Your task to perform on an android device: open app "Speedtest by Ookla" (install if not already installed) and go to login screen Image 0: 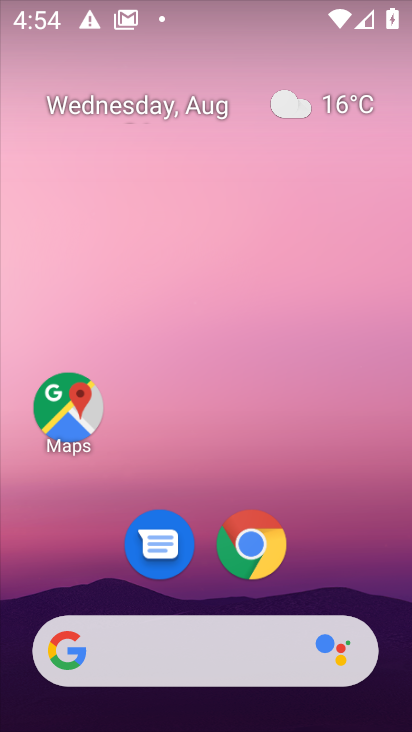
Step 0: drag from (181, 664) to (280, 38)
Your task to perform on an android device: open app "Speedtest by Ookla" (install if not already installed) and go to login screen Image 1: 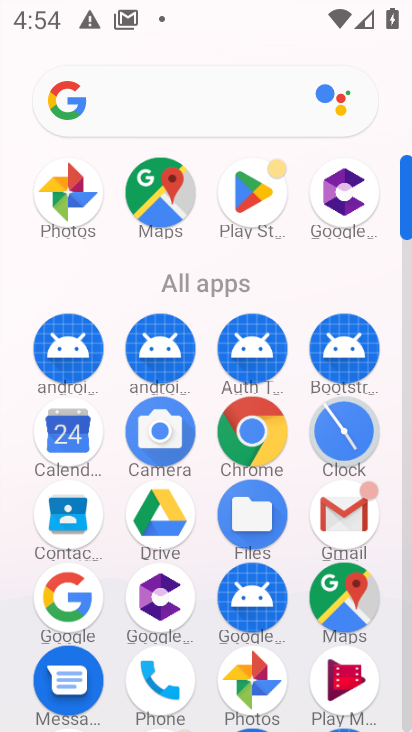
Step 1: click (258, 194)
Your task to perform on an android device: open app "Speedtest by Ookla" (install if not already installed) and go to login screen Image 2: 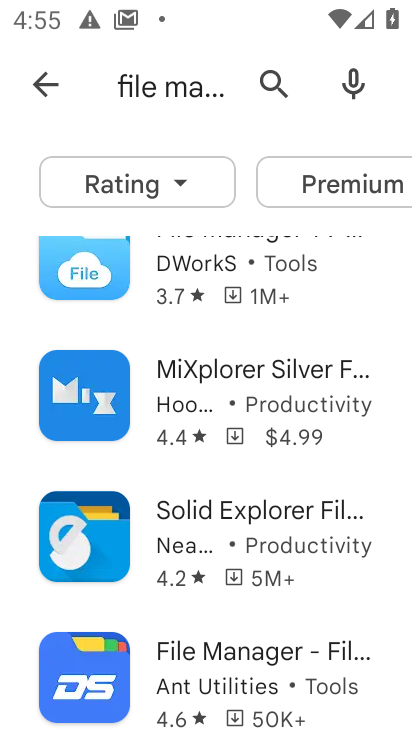
Step 2: press back button
Your task to perform on an android device: open app "Speedtest by Ookla" (install if not already installed) and go to login screen Image 3: 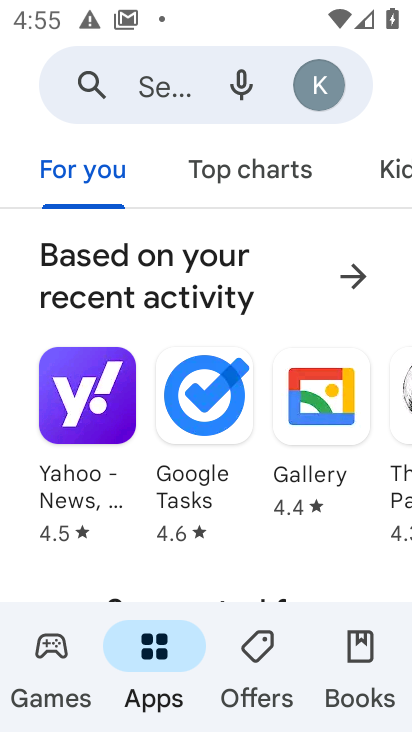
Step 3: click (170, 95)
Your task to perform on an android device: open app "Speedtest by Ookla" (install if not already installed) and go to login screen Image 4: 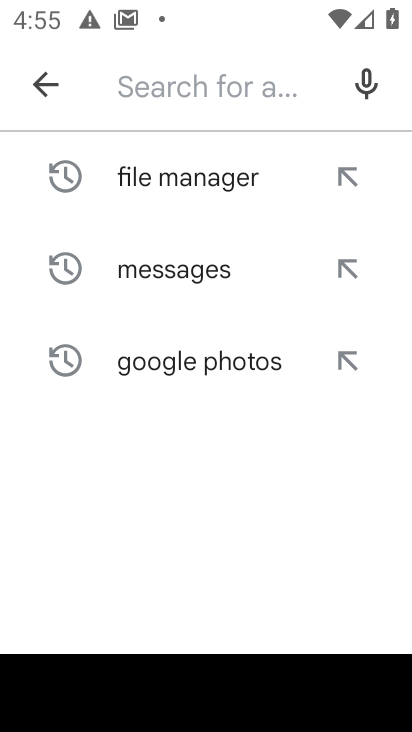
Step 4: type "Speedtest by "
Your task to perform on an android device: open app "Speedtest by Ookla" (install if not already installed) and go to login screen Image 5: 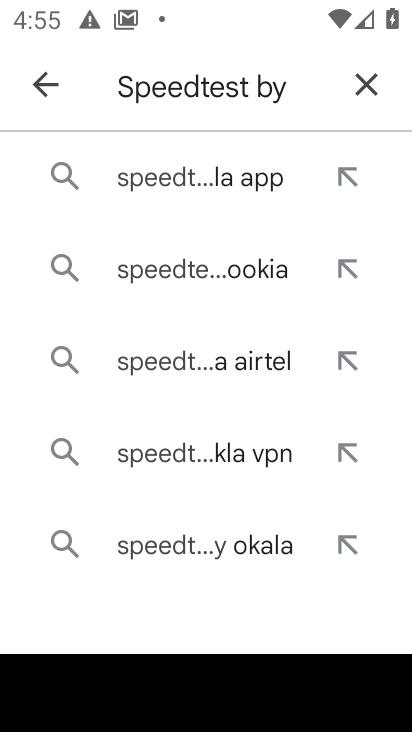
Step 5: type "ookla"
Your task to perform on an android device: open app "Speedtest by Ookla" (install if not already installed) and go to login screen Image 6: 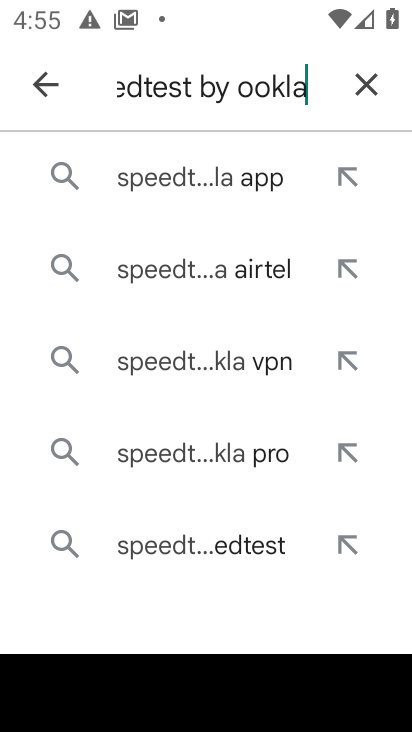
Step 6: click (165, 184)
Your task to perform on an android device: open app "Speedtest by Ookla" (install if not already installed) and go to login screen Image 7: 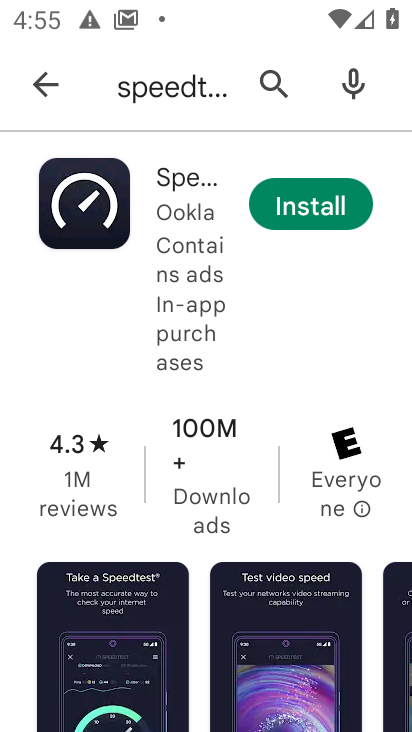
Step 7: click (308, 206)
Your task to perform on an android device: open app "Speedtest by Ookla" (install if not already installed) and go to login screen Image 8: 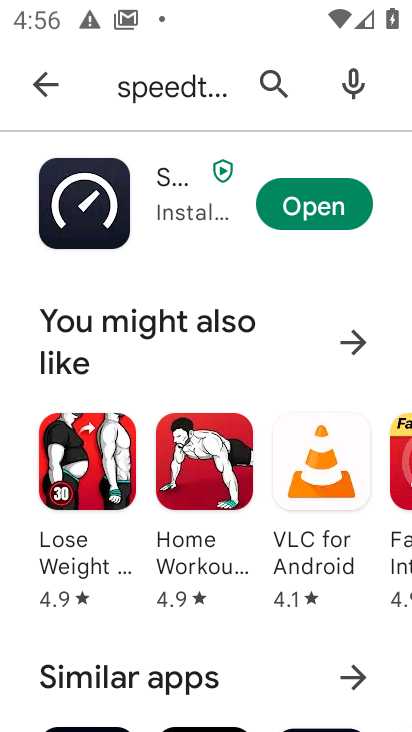
Step 8: click (308, 204)
Your task to perform on an android device: open app "Speedtest by Ookla" (install if not already installed) and go to login screen Image 9: 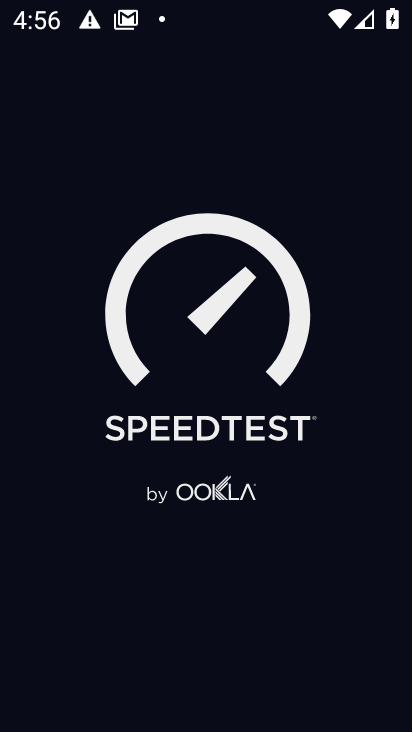
Step 9: click (308, 517)
Your task to perform on an android device: open app "Speedtest by Ookla" (install if not already installed) and go to login screen Image 10: 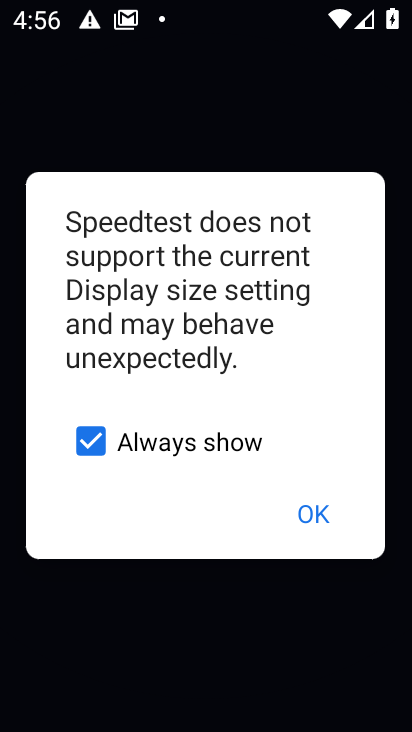
Step 10: click (308, 517)
Your task to perform on an android device: open app "Speedtest by Ookla" (install if not already installed) and go to login screen Image 11: 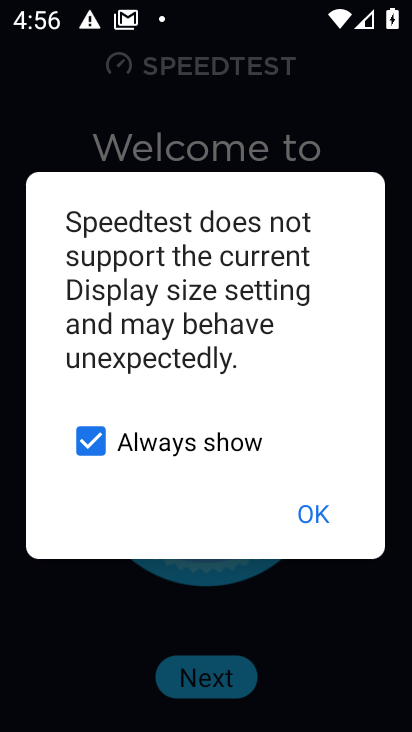
Step 11: click (322, 513)
Your task to perform on an android device: open app "Speedtest by Ookla" (install if not already installed) and go to login screen Image 12: 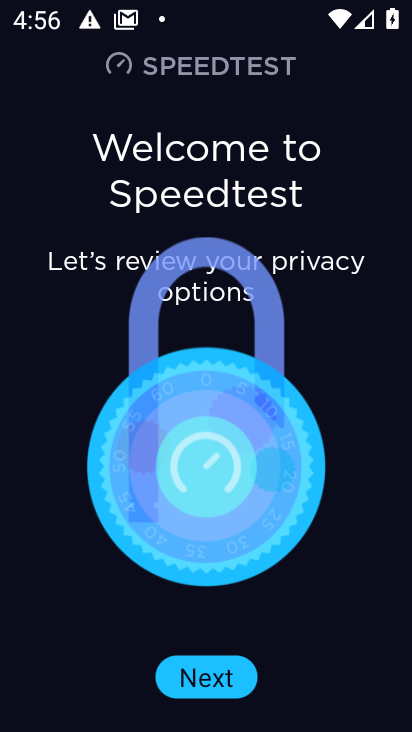
Step 12: click (213, 676)
Your task to perform on an android device: open app "Speedtest by Ookla" (install if not already installed) and go to login screen Image 13: 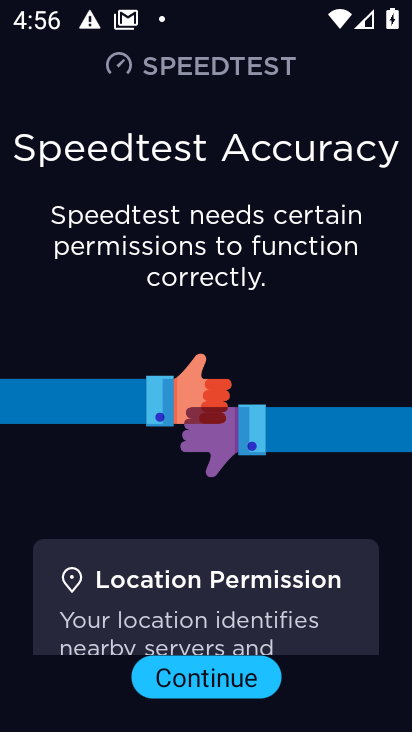
Step 13: click (213, 676)
Your task to perform on an android device: open app "Speedtest by Ookla" (install if not already installed) and go to login screen Image 14: 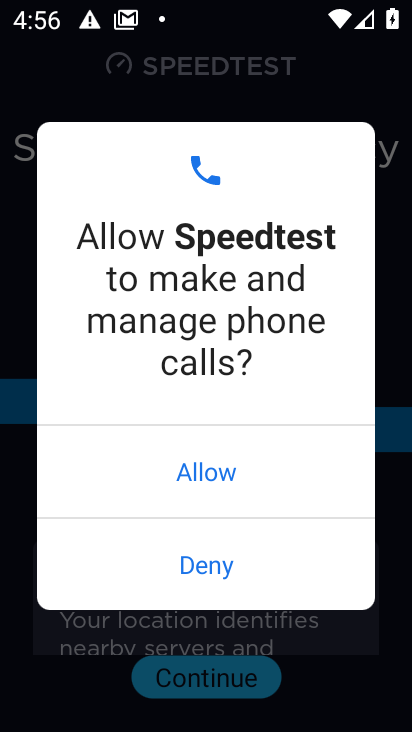
Step 14: click (210, 480)
Your task to perform on an android device: open app "Speedtest by Ookla" (install if not already installed) and go to login screen Image 15: 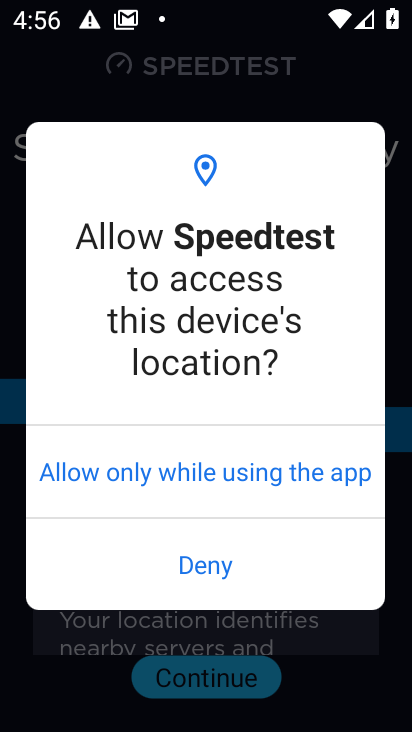
Step 15: click (210, 480)
Your task to perform on an android device: open app "Speedtest by Ookla" (install if not already installed) and go to login screen Image 16: 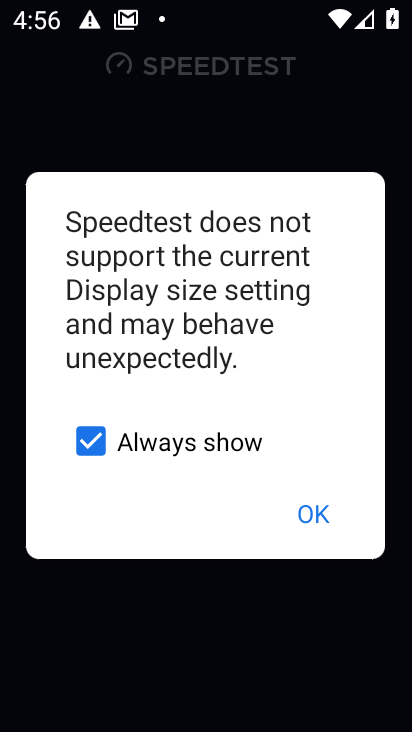
Step 16: click (321, 513)
Your task to perform on an android device: open app "Speedtest by Ookla" (install if not already installed) and go to login screen Image 17: 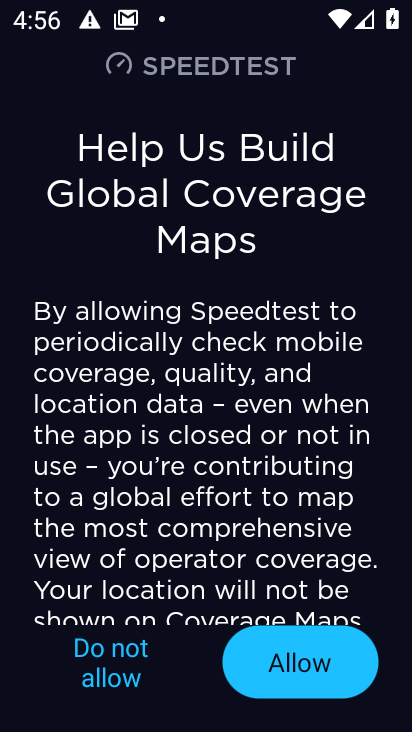
Step 17: click (312, 656)
Your task to perform on an android device: open app "Speedtest by Ookla" (install if not already installed) and go to login screen Image 18: 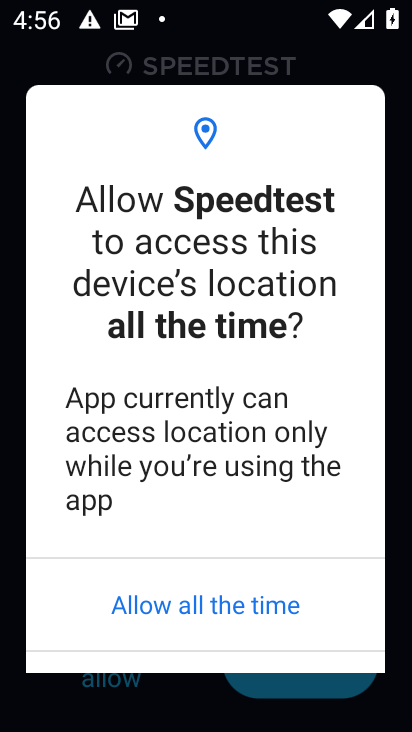
Step 18: click (242, 604)
Your task to perform on an android device: open app "Speedtest by Ookla" (install if not already installed) and go to login screen Image 19: 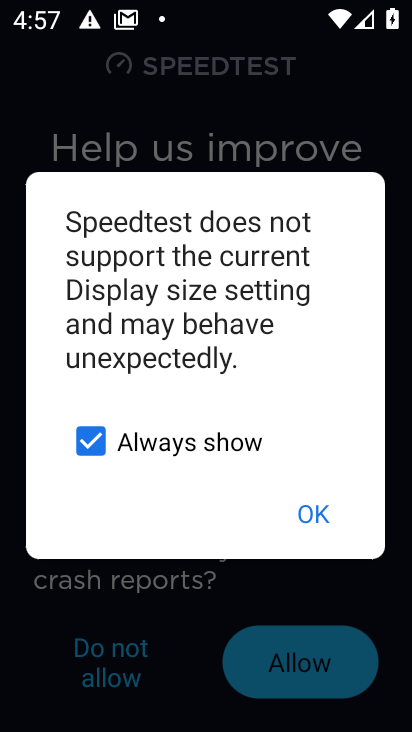
Step 19: click (316, 517)
Your task to perform on an android device: open app "Speedtest by Ookla" (install if not already installed) and go to login screen Image 20: 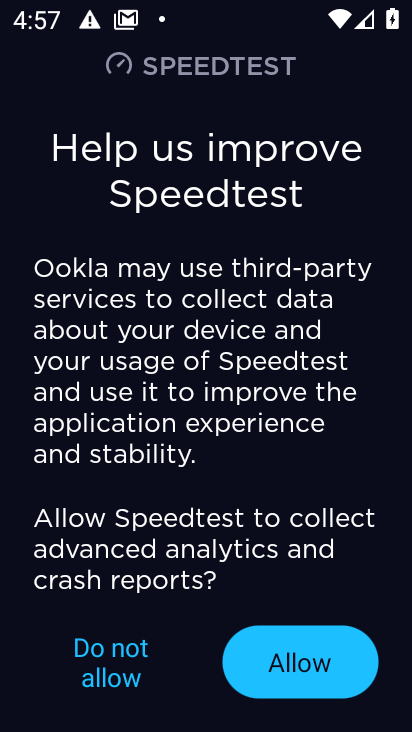
Step 20: task complete